Your task to perform on an android device: Open location settings Image 0: 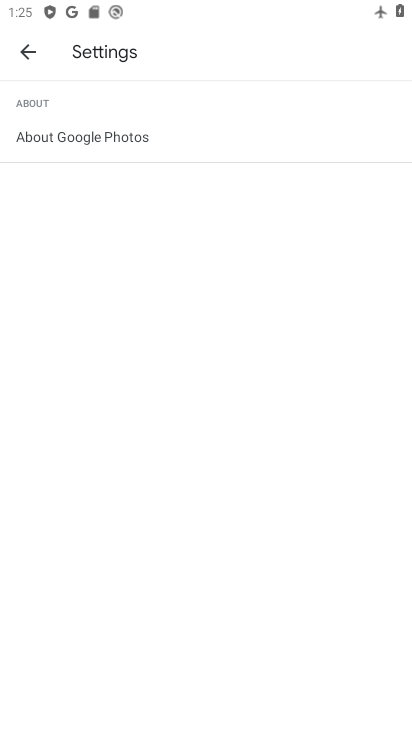
Step 0: press home button
Your task to perform on an android device: Open location settings Image 1: 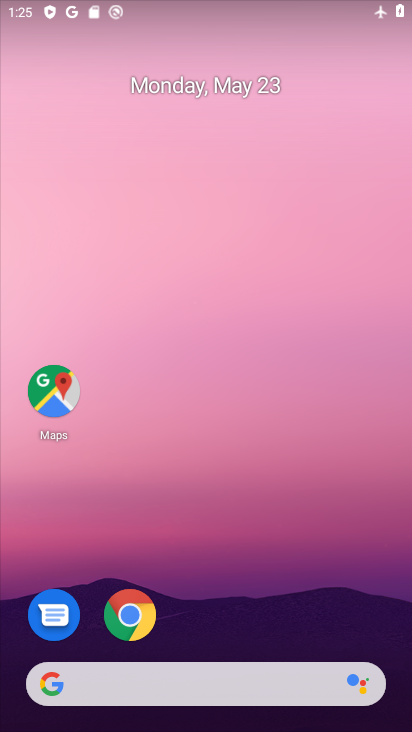
Step 1: drag from (196, 646) to (204, 89)
Your task to perform on an android device: Open location settings Image 2: 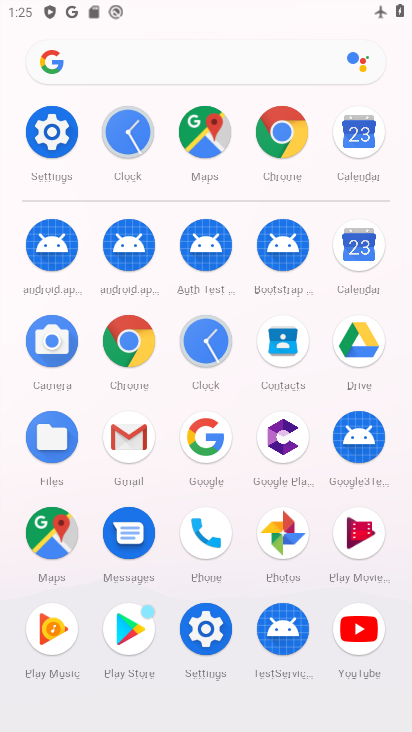
Step 2: click (41, 118)
Your task to perform on an android device: Open location settings Image 3: 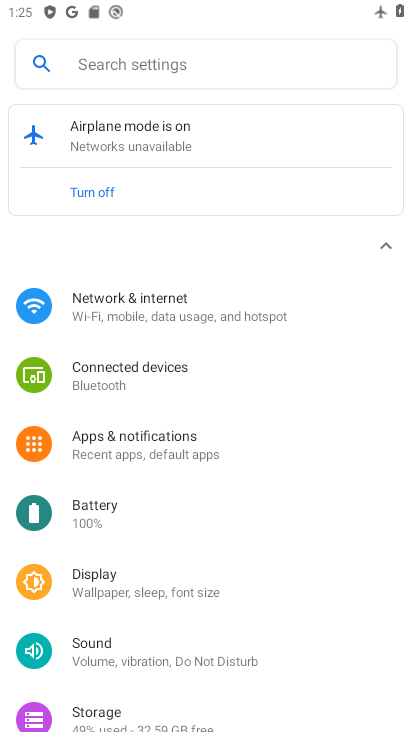
Step 3: drag from (198, 611) to (185, 205)
Your task to perform on an android device: Open location settings Image 4: 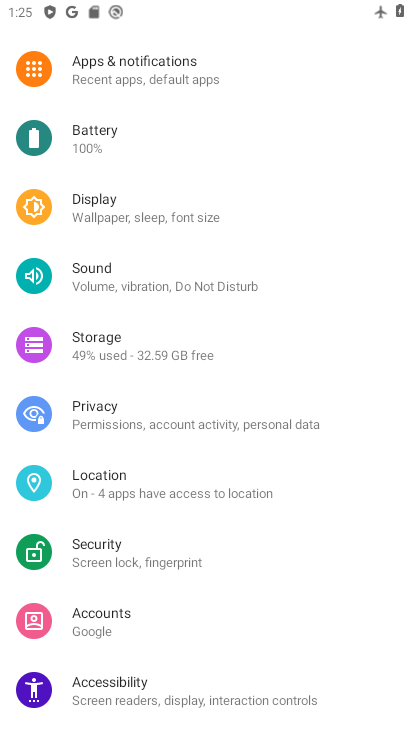
Step 4: click (110, 485)
Your task to perform on an android device: Open location settings Image 5: 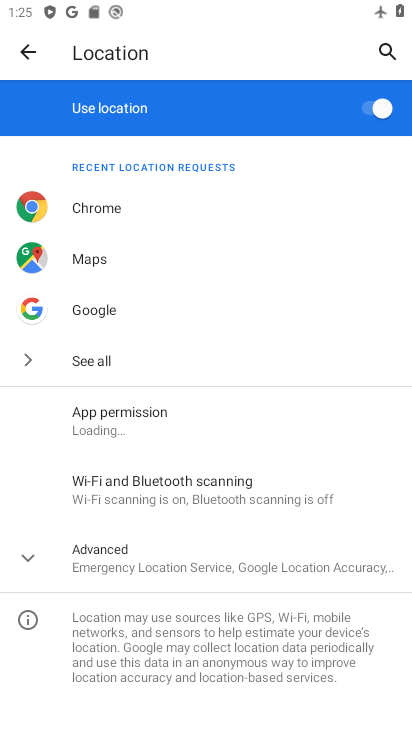
Step 5: click (104, 530)
Your task to perform on an android device: Open location settings Image 6: 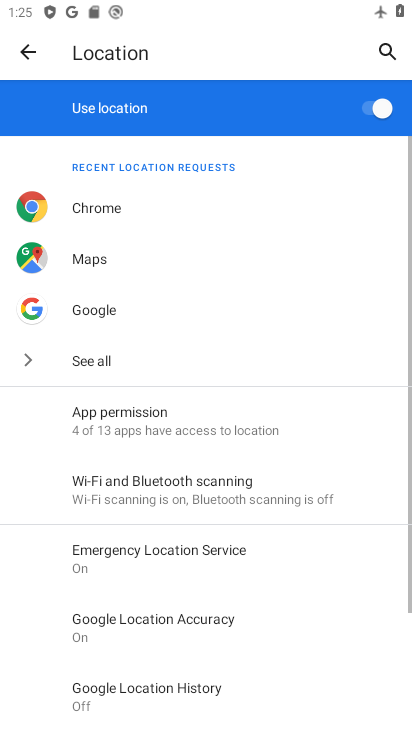
Step 6: task complete